Your task to perform on an android device: What's the weather going to be tomorrow? Image 0: 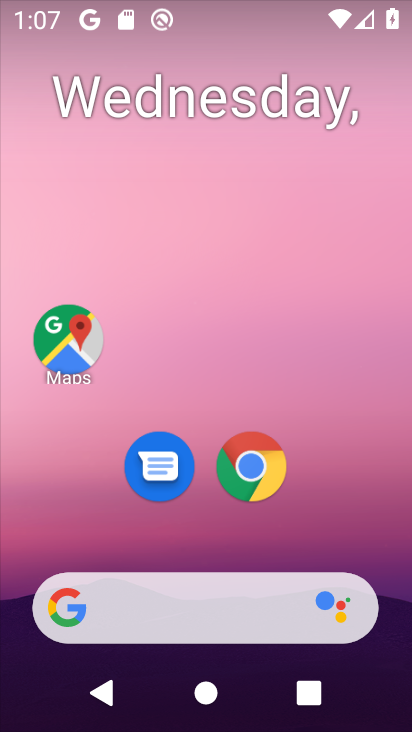
Step 0: click (201, 596)
Your task to perform on an android device: What's the weather going to be tomorrow? Image 1: 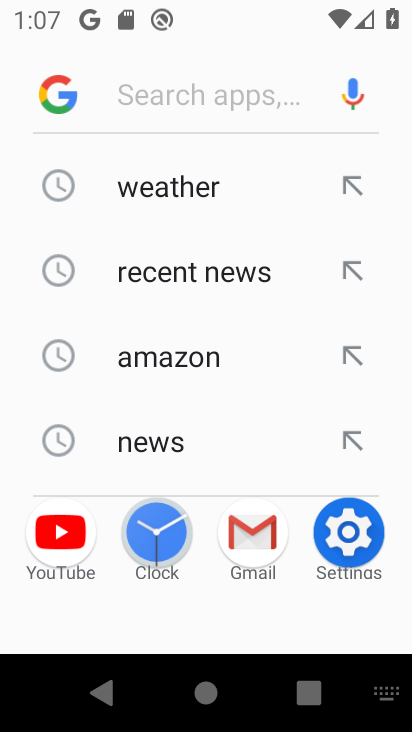
Step 1: click (248, 200)
Your task to perform on an android device: What's the weather going to be tomorrow? Image 2: 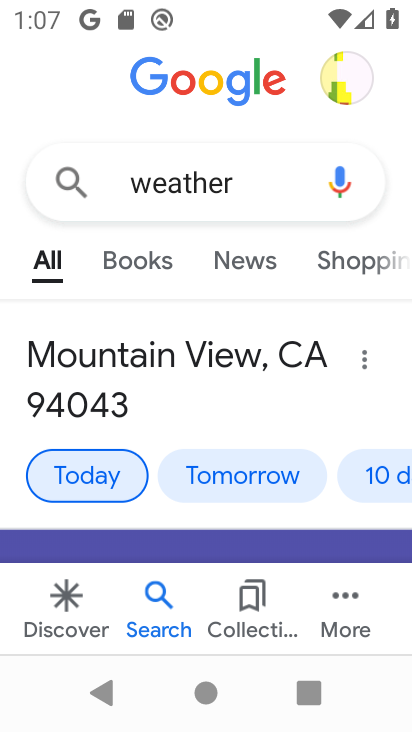
Step 2: click (239, 466)
Your task to perform on an android device: What's the weather going to be tomorrow? Image 3: 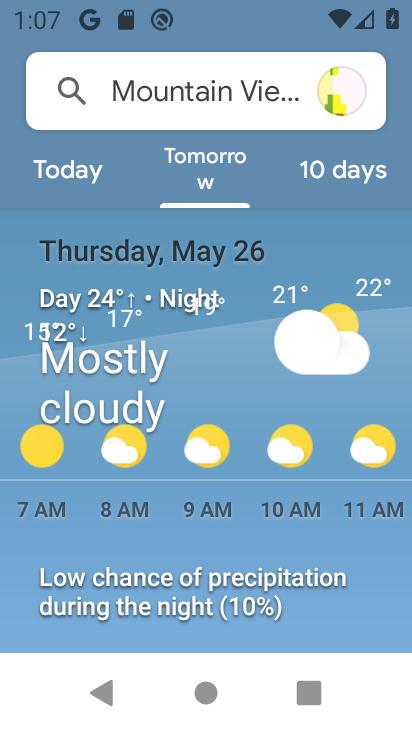
Step 3: task complete